Your task to perform on an android device: change text size in settings app Image 0: 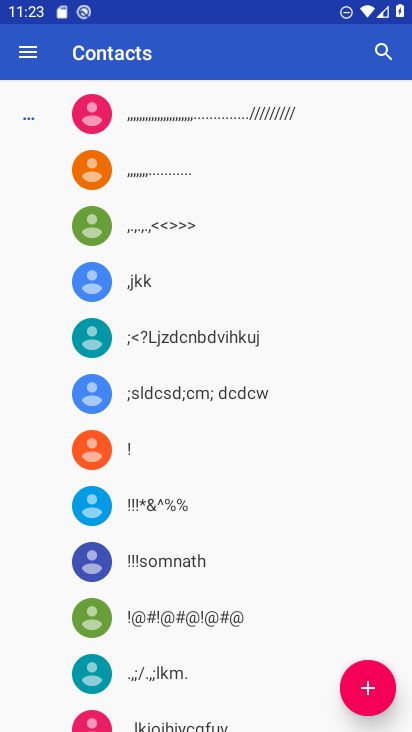
Step 0: press back button
Your task to perform on an android device: change text size in settings app Image 1: 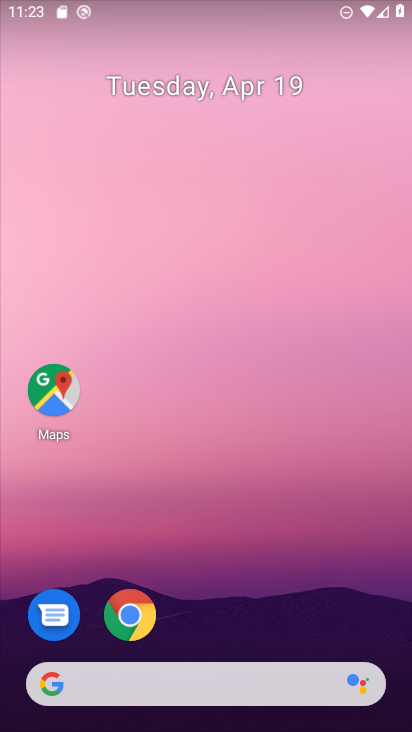
Step 1: drag from (223, 660) to (223, 278)
Your task to perform on an android device: change text size in settings app Image 2: 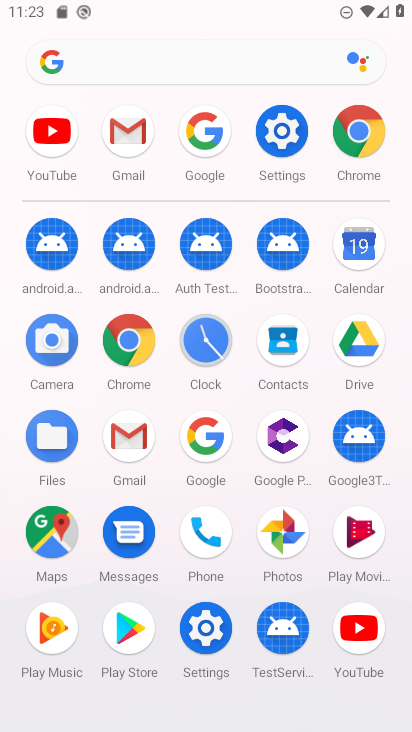
Step 2: click (289, 126)
Your task to perform on an android device: change text size in settings app Image 3: 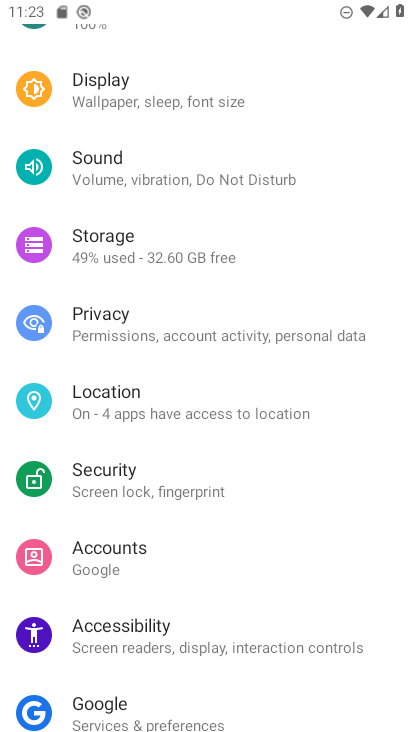
Step 3: drag from (170, 684) to (189, 334)
Your task to perform on an android device: change text size in settings app Image 4: 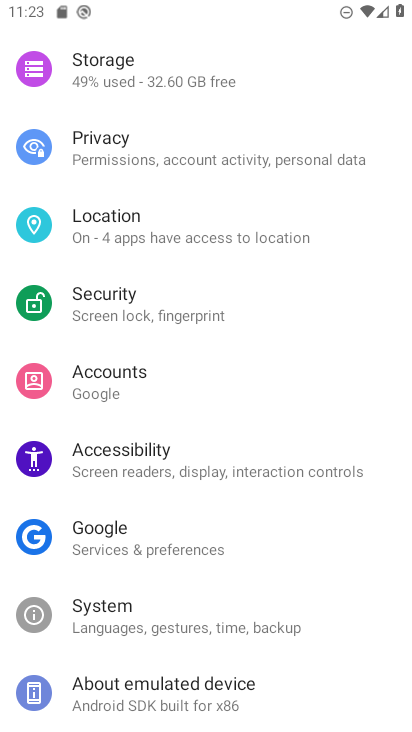
Step 4: click (134, 462)
Your task to perform on an android device: change text size in settings app Image 5: 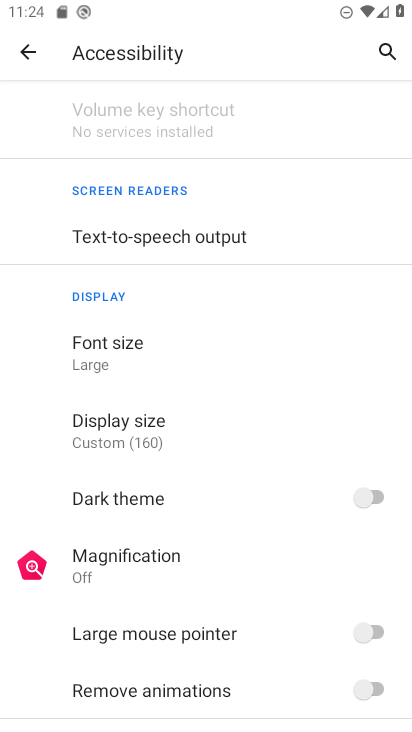
Step 5: click (122, 353)
Your task to perform on an android device: change text size in settings app Image 6: 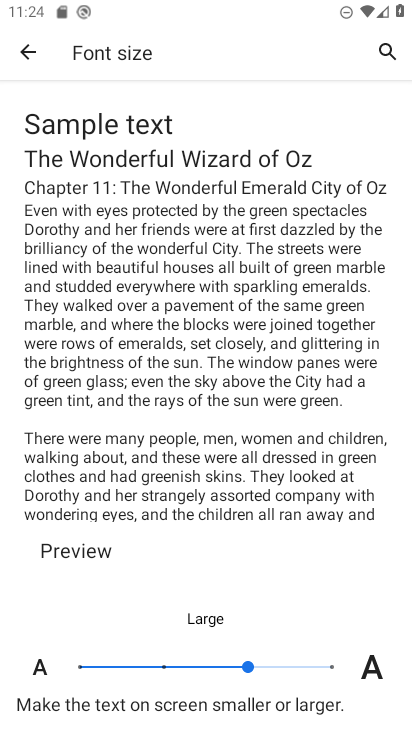
Step 6: click (163, 662)
Your task to perform on an android device: change text size in settings app Image 7: 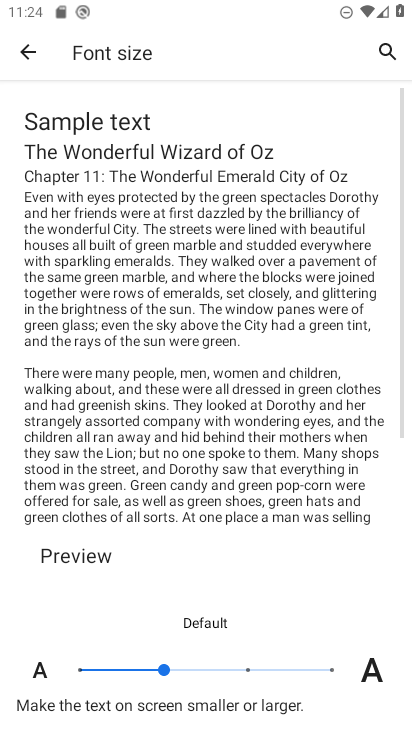
Step 7: task complete